Your task to perform on an android device: When is my next meeting? Image 0: 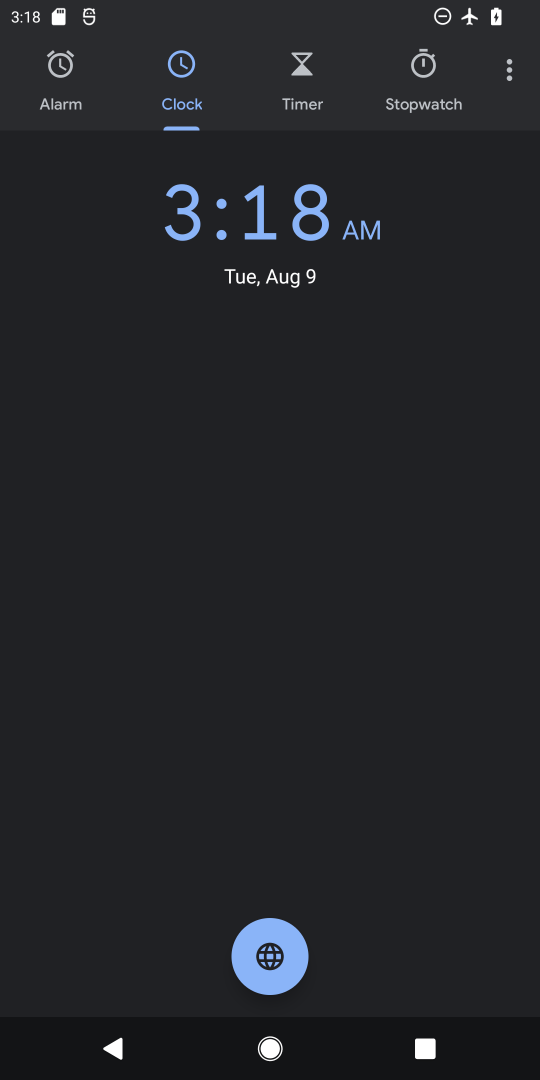
Step 0: press home button
Your task to perform on an android device: When is my next meeting? Image 1: 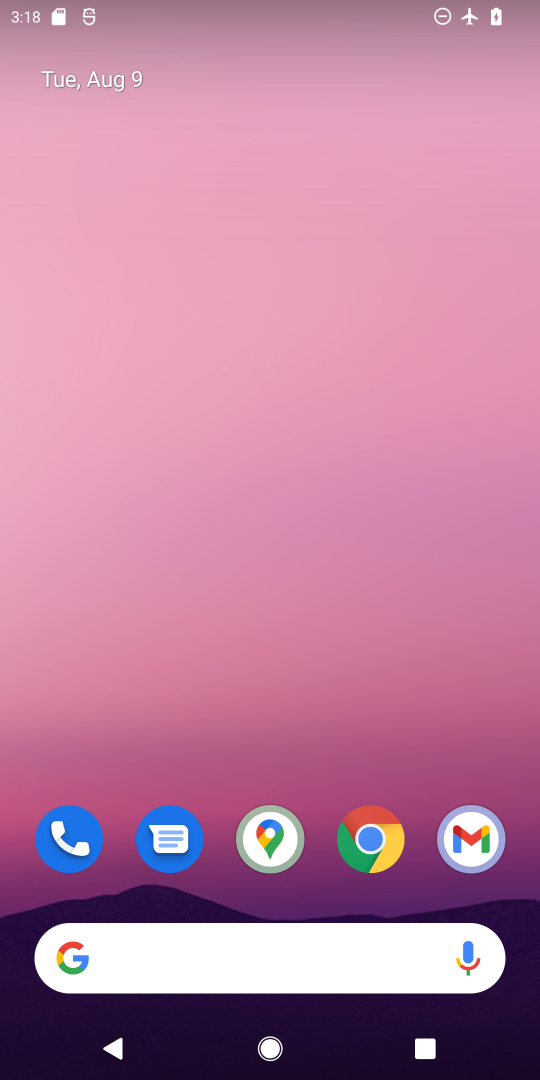
Step 1: drag from (300, 743) to (264, 237)
Your task to perform on an android device: When is my next meeting? Image 2: 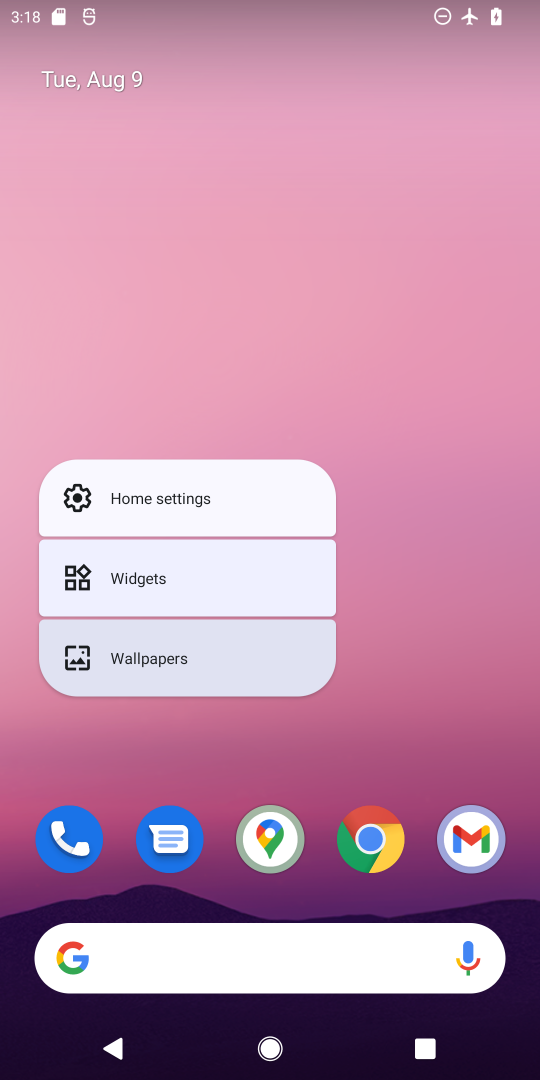
Step 2: drag from (430, 730) to (392, 148)
Your task to perform on an android device: When is my next meeting? Image 3: 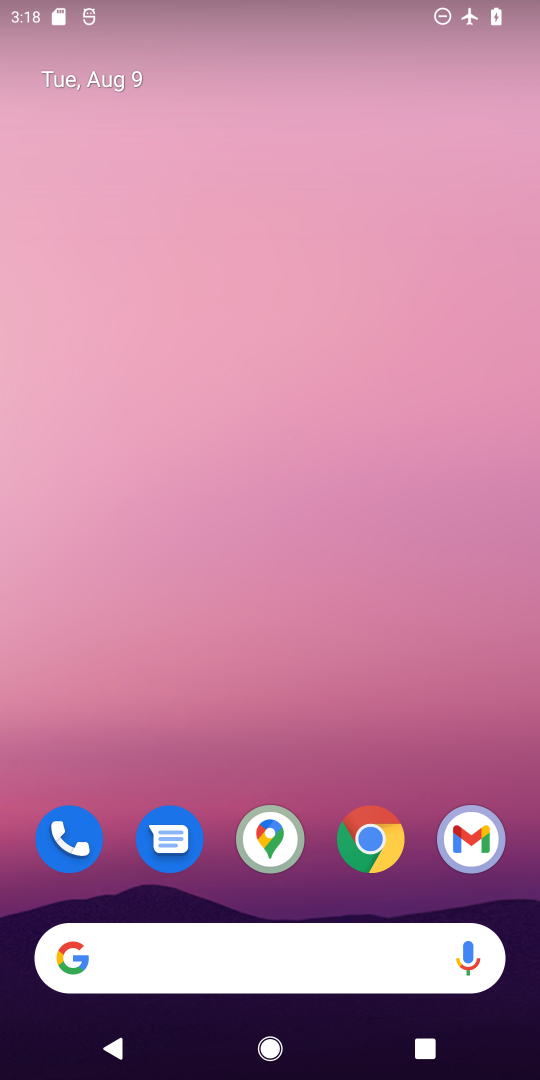
Step 3: drag from (308, 802) to (279, 319)
Your task to perform on an android device: When is my next meeting? Image 4: 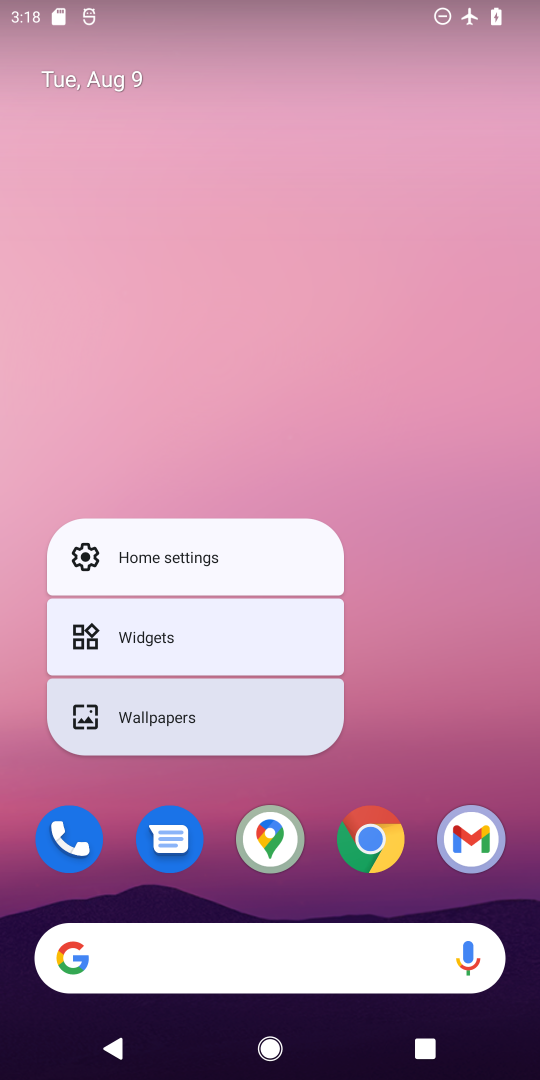
Step 4: press home button
Your task to perform on an android device: When is my next meeting? Image 5: 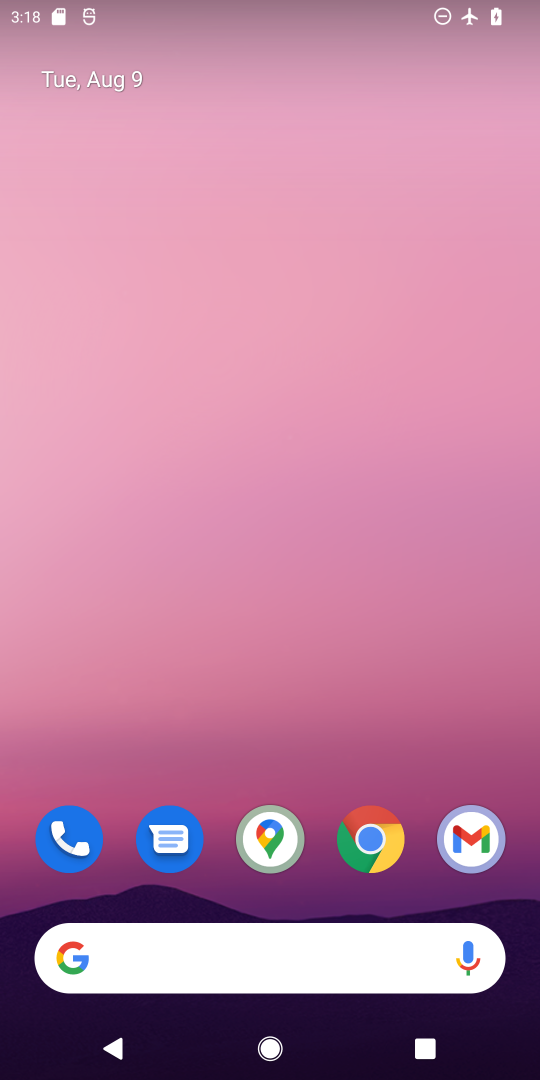
Step 5: drag from (301, 724) to (301, 207)
Your task to perform on an android device: When is my next meeting? Image 6: 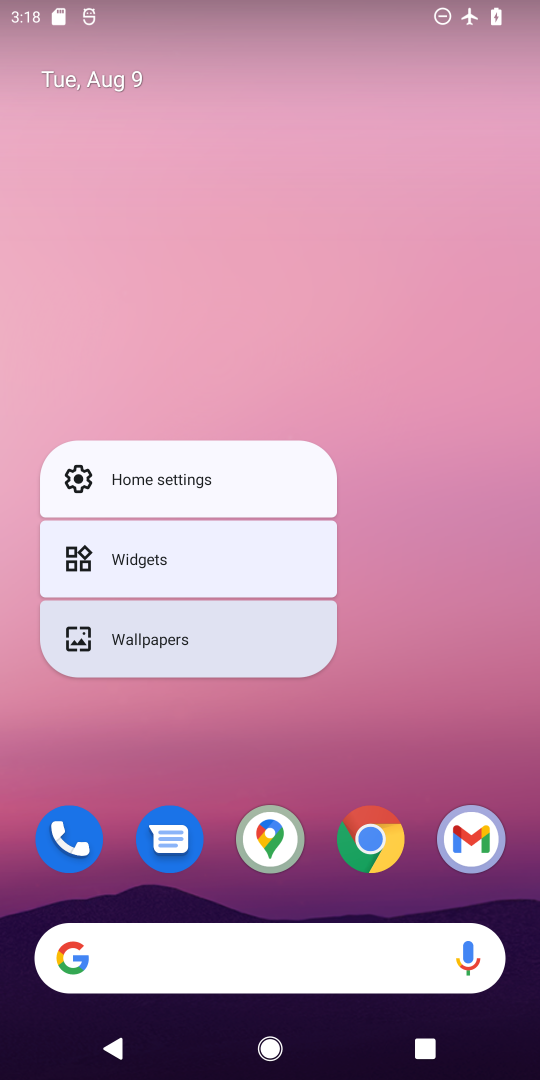
Step 6: drag from (329, 755) to (454, 5)
Your task to perform on an android device: When is my next meeting? Image 7: 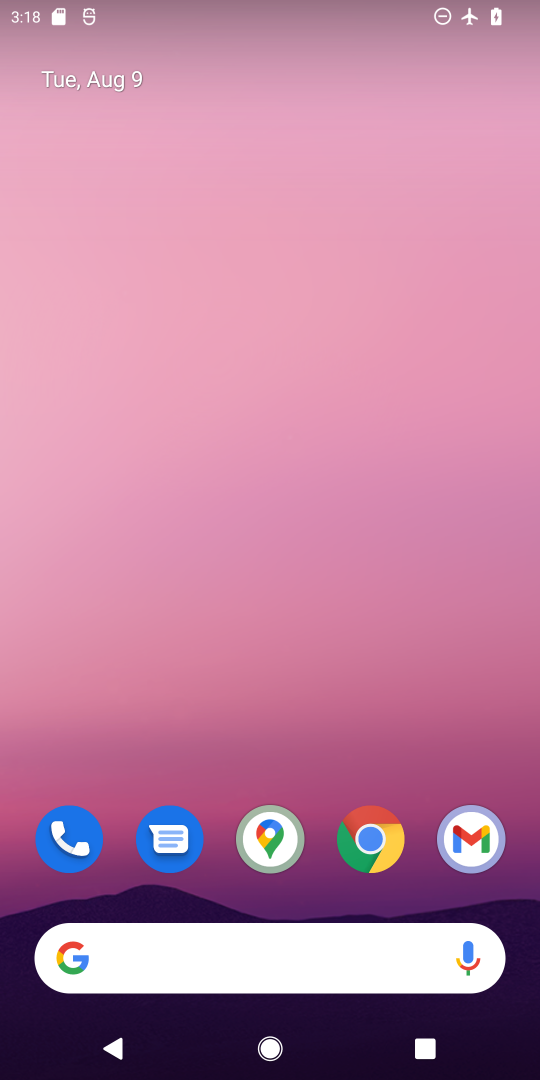
Step 7: press home button
Your task to perform on an android device: When is my next meeting? Image 8: 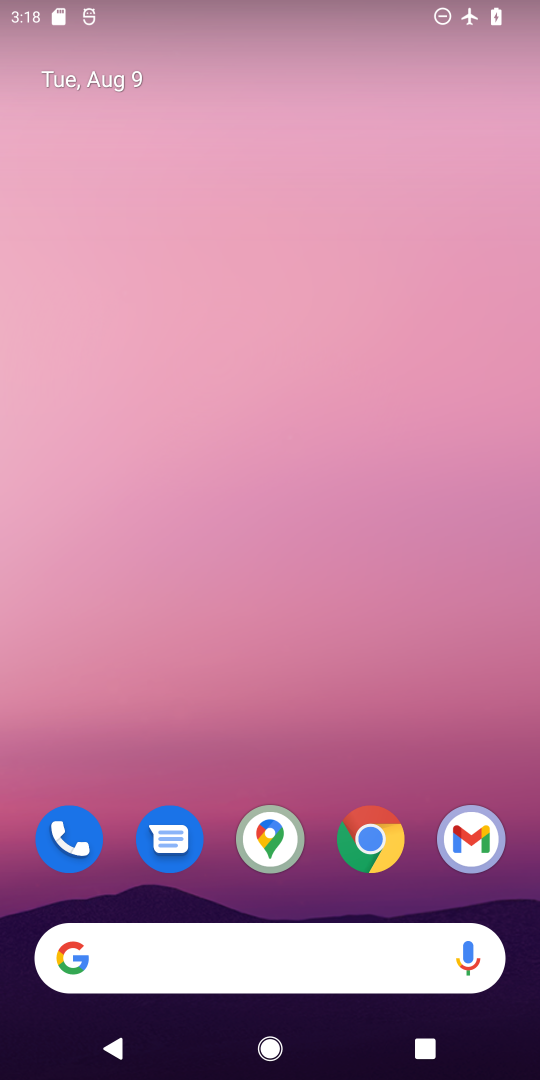
Step 8: drag from (231, 891) to (212, 116)
Your task to perform on an android device: When is my next meeting? Image 9: 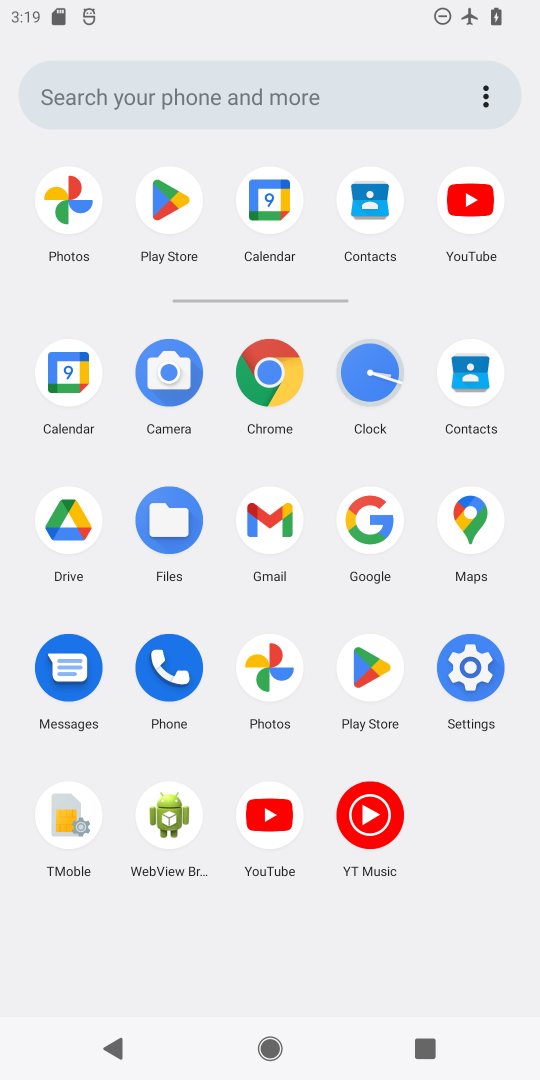
Step 9: click (61, 371)
Your task to perform on an android device: When is my next meeting? Image 10: 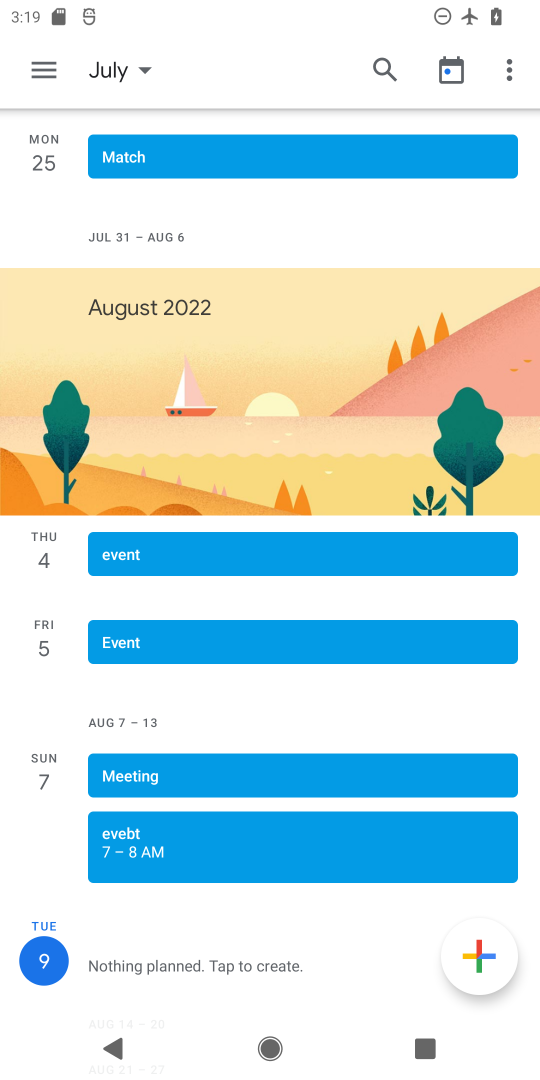
Step 10: drag from (228, 219) to (171, 724)
Your task to perform on an android device: When is my next meeting? Image 11: 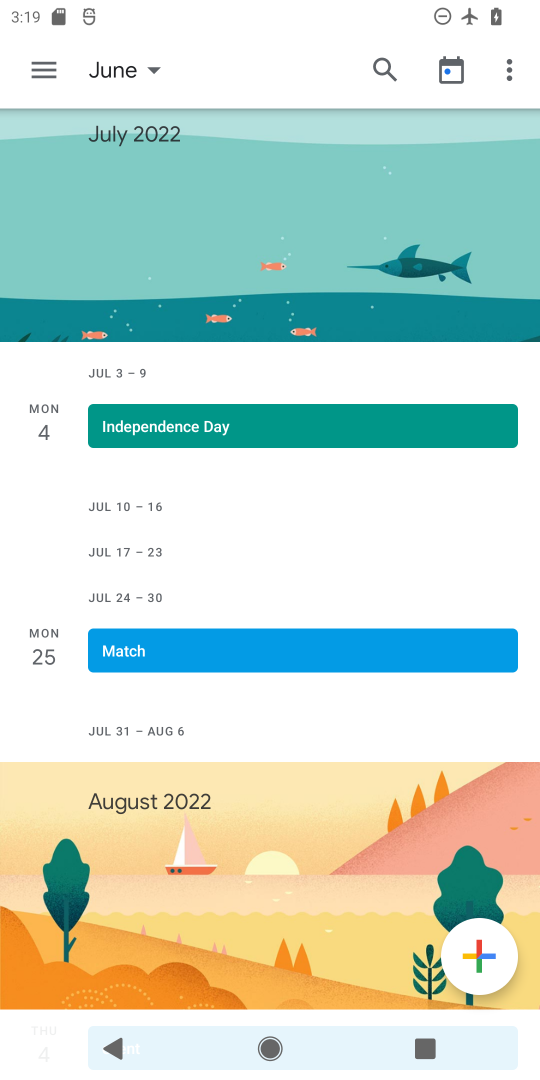
Step 11: click (42, 69)
Your task to perform on an android device: When is my next meeting? Image 12: 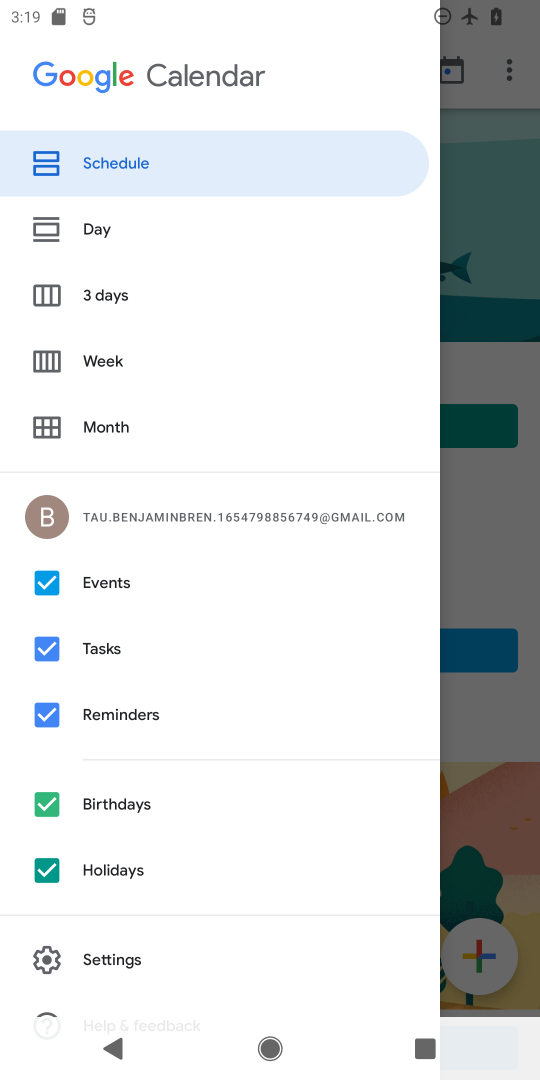
Step 12: click (141, 168)
Your task to perform on an android device: When is my next meeting? Image 13: 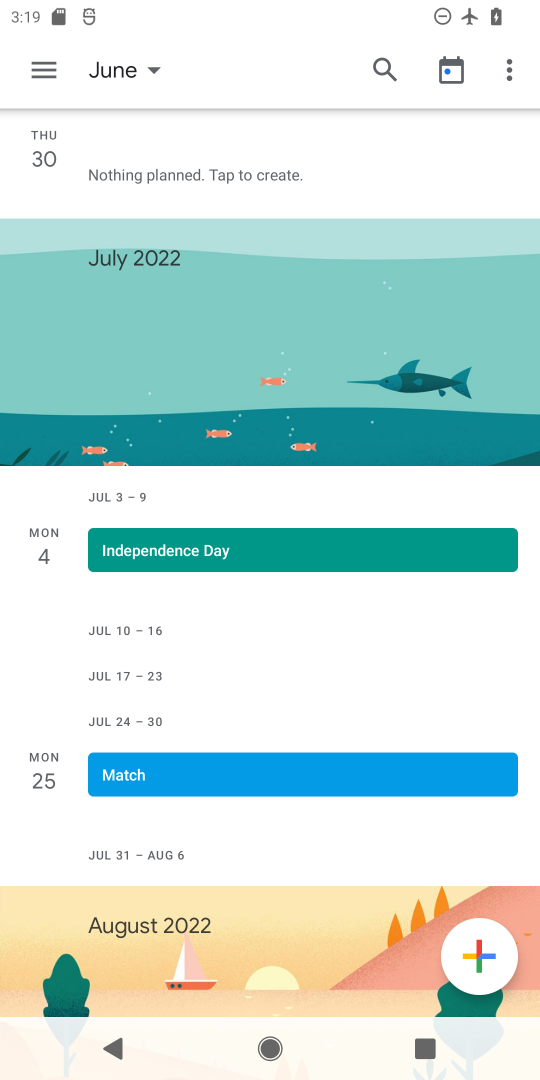
Step 13: task complete